Your task to perform on an android device: open the mobile data screen to see how much data has been used Image 0: 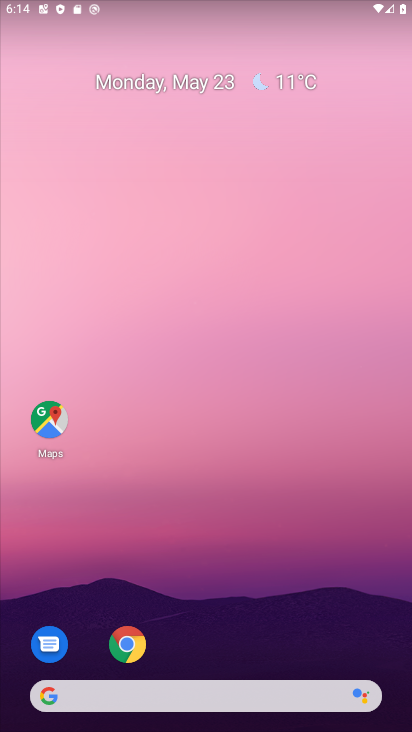
Step 0: drag from (270, 560) to (258, 263)
Your task to perform on an android device: open the mobile data screen to see how much data has been used Image 1: 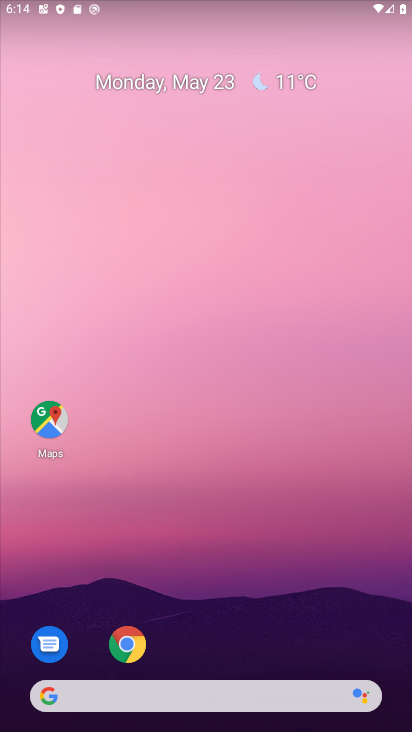
Step 1: drag from (212, 525) to (210, 149)
Your task to perform on an android device: open the mobile data screen to see how much data has been used Image 2: 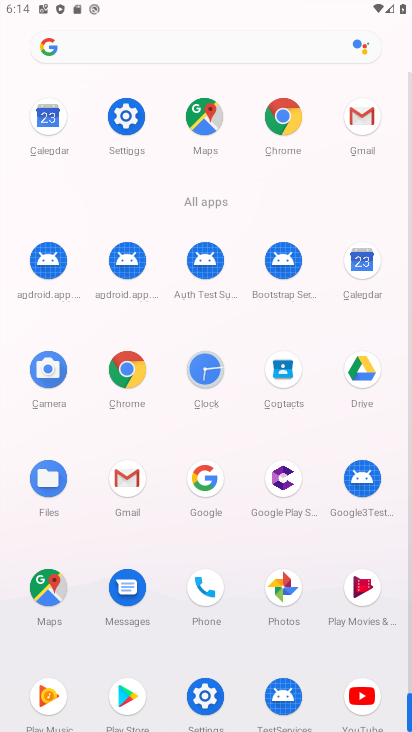
Step 2: click (126, 124)
Your task to perform on an android device: open the mobile data screen to see how much data has been used Image 3: 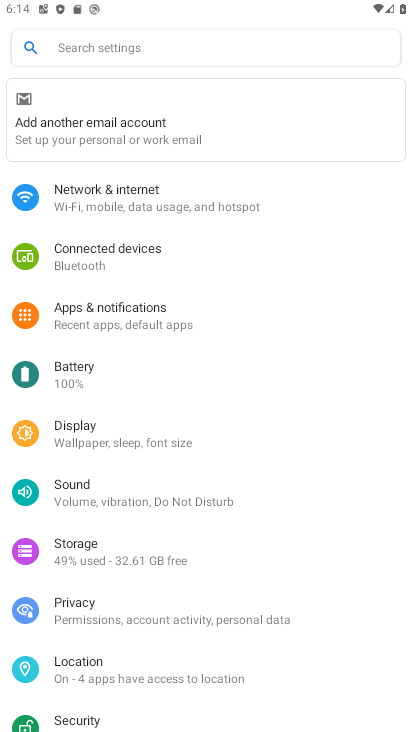
Step 3: click (116, 204)
Your task to perform on an android device: open the mobile data screen to see how much data has been used Image 4: 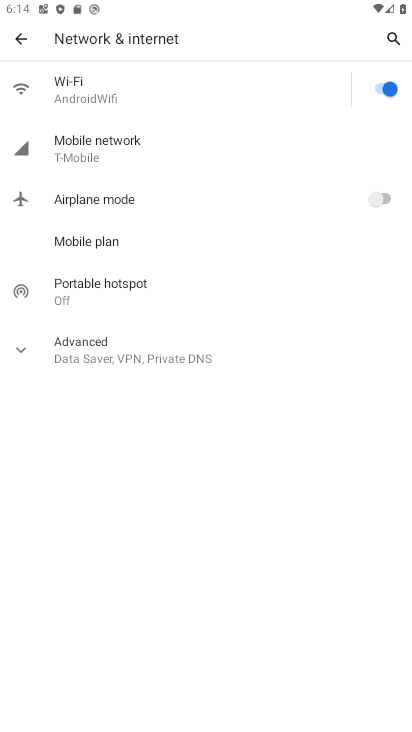
Step 4: drag from (116, 204) to (111, 382)
Your task to perform on an android device: open the mobile data screen to see how much data has been used Image 5: 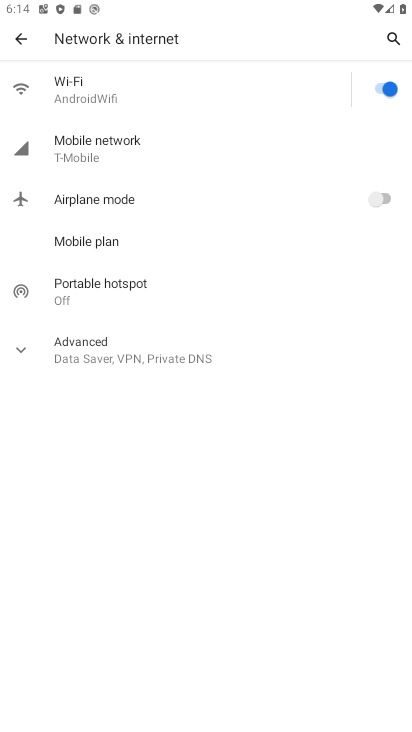
Step 5: click (128, 151)
Your task to perform on an android device: open the mobile data screen to see how much data has been used Image 6: 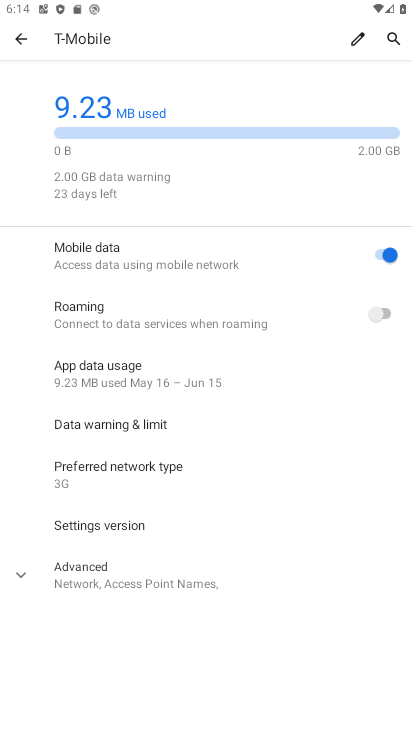
Step 6: task complete